Your task to perform on an android device: Open Youtube and go to the subscriptions tab Image 0: 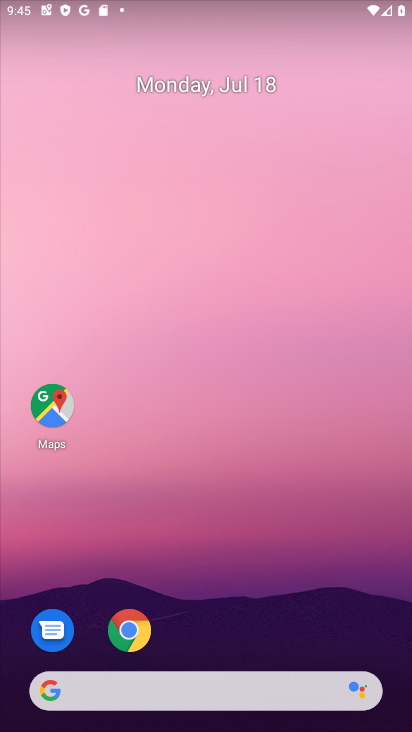
Step 0: drag from (335, 594) to (105, 16)
Your task to perform on an android device: Open Youtube and go to the subscriptions tab Image 1: 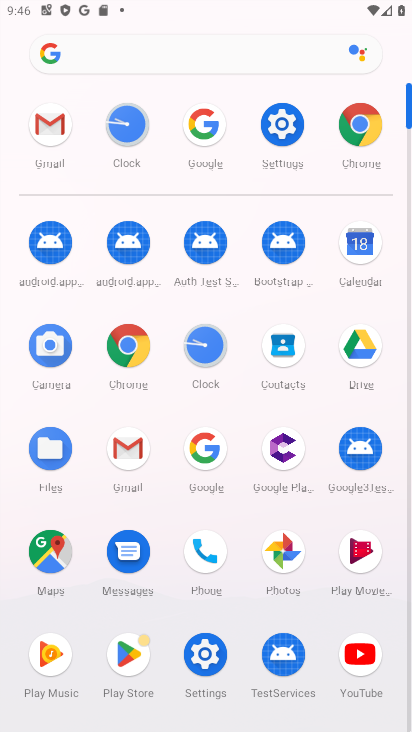
Step 1: click (350, 674)
Your task to perform on an android device: Open Youtube and go to the subscriptions tab Image 2: 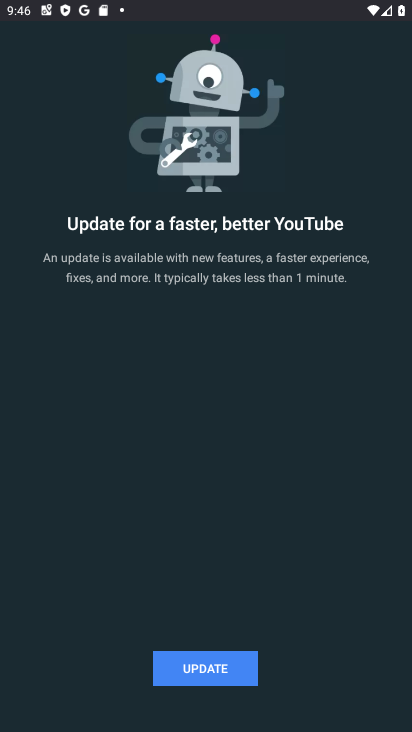
Step 2: click (200, 668)
Your task to perform on an android device: Open Youtube and go to the subscriptions tab Image 3: 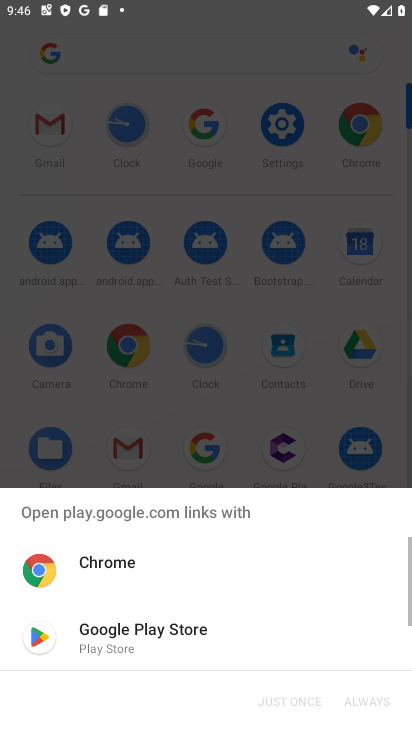
Step 3: click (86, 636)
Your task to perform on an android device: Open Youtube and go to the subscriptions tab Image 4: 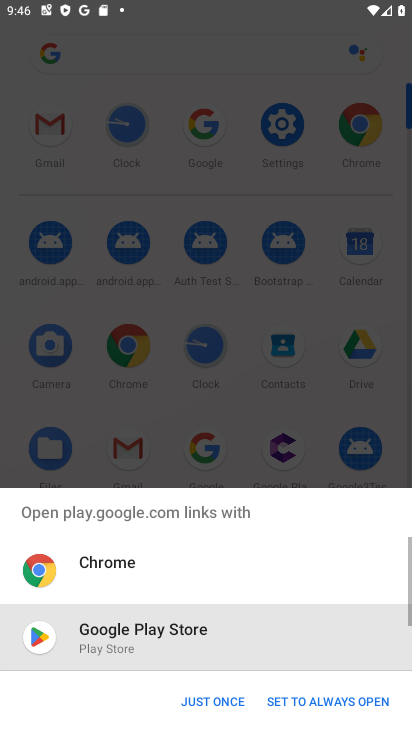
Step 4: click (190, 720)
Your task to perform on an android device: Open Youtube and go to the subscriptions tab Image 5: 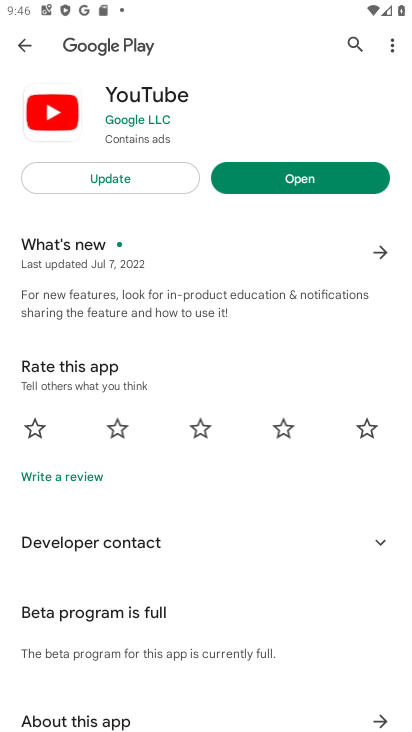
Step 5: click (103, 182)
Your task to perform on an android device: Open Youtube and go to the subscriptions tab Image 6: 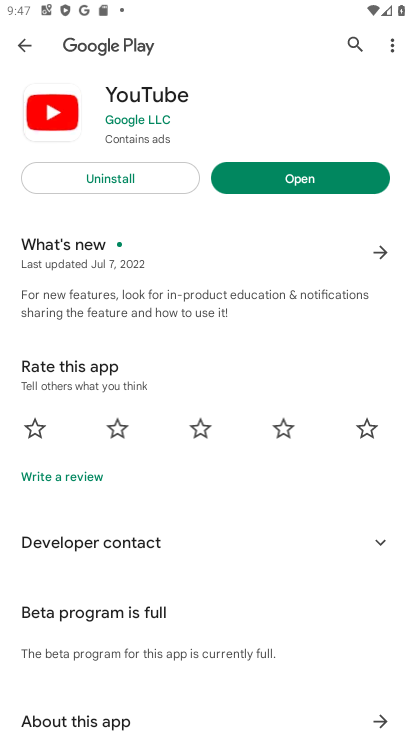
Step 6: click (237, 182)
Your task to perform on an android device: Open Youtube and go to the subscriptions tab Image 7: 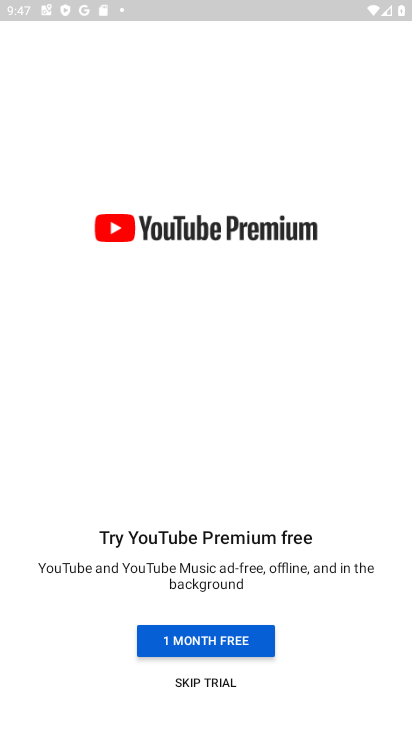
Step 7: click (212, 687)
Your task to perform on an android device: Open Youtube and go to the subscriptions tab Image 8: 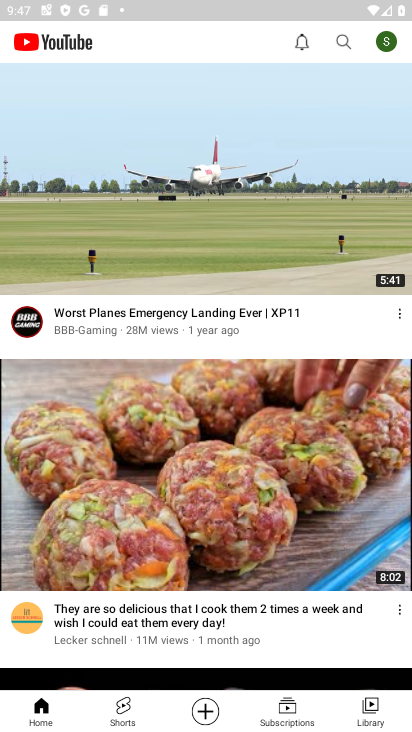
Step 8: click (292, 709)
Your task to perform on an android device: Open Youtube and go to the subscriptions tab Image 9: 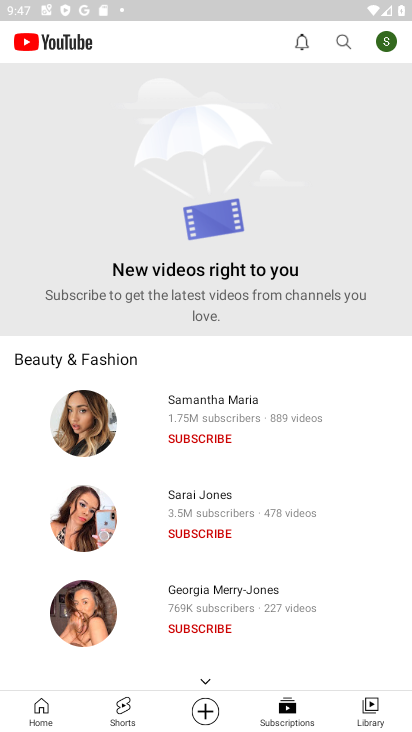
Step 9: task complete